Your task to perform on an android device: Open notification settings Image 0: 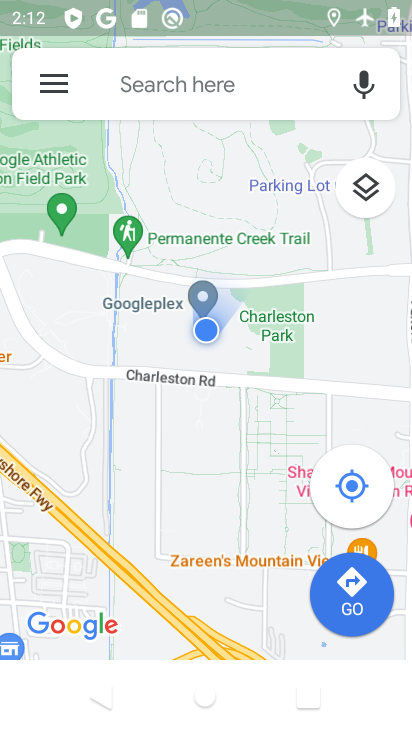
Step 0: press back button
Your task to perform on an android device: Open notification settings Image 1: 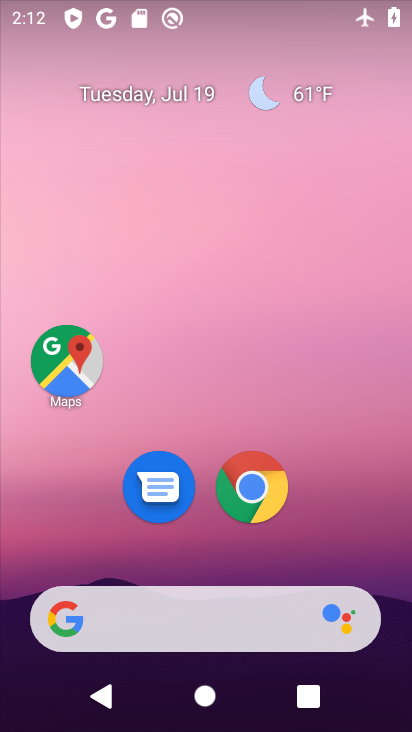
Step 1: drag from (233, 565) to (292, 1)
Your task to perform on an android device: Open notification settings Image 2: 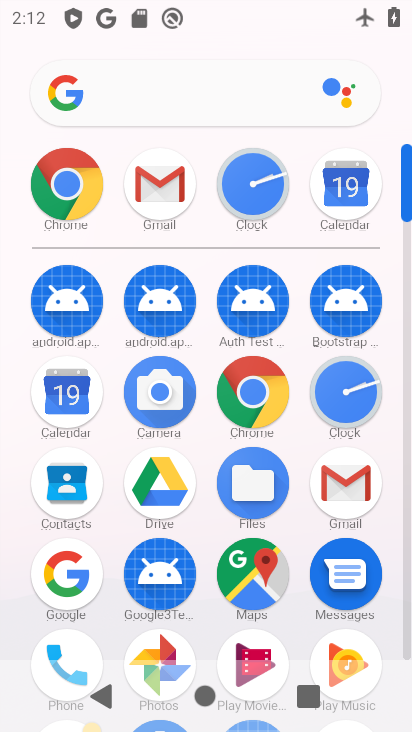
Step 2: drag from (196, 618) to (284, 69)
Your task to perform on an android device: Open notification settings Image 3: 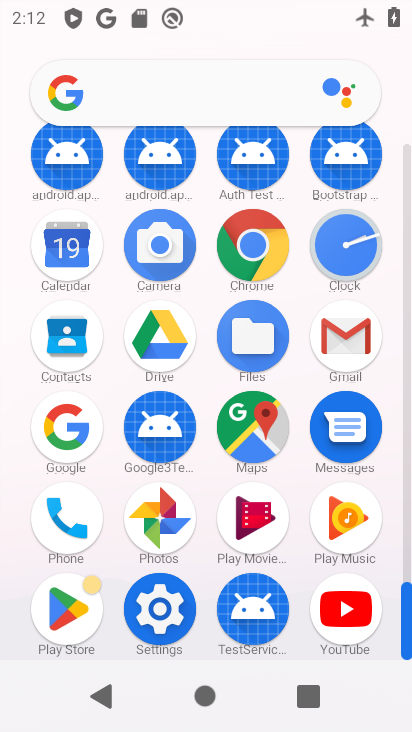
Step 3: click (152, 603)
Your task to perform on an android device: Open notification settings Image 4: 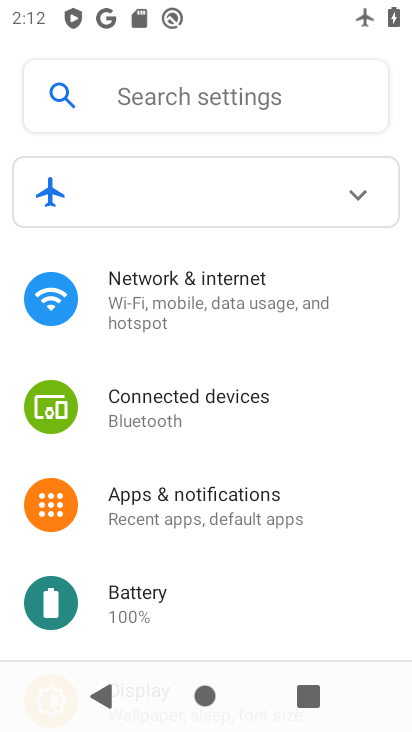
Step 4: click (193, 508)
Your task to perform on an android device: Open notification settings Image 5: 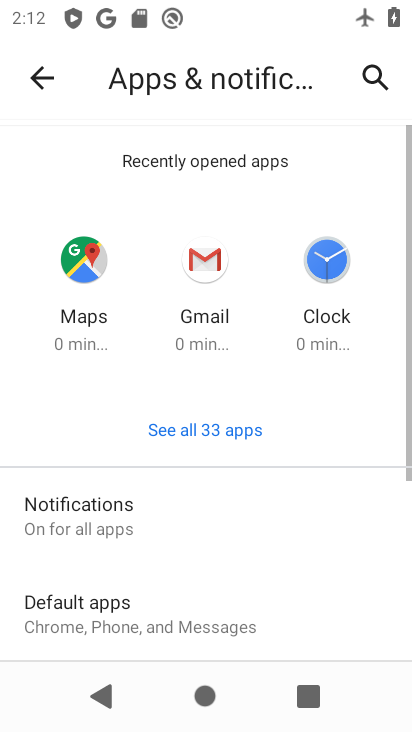
Step 5: task complete